Your task to perform on an android device: check data usage Image 0: 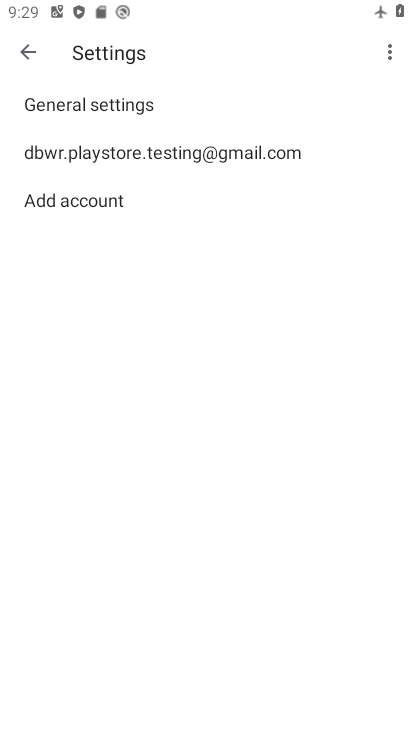
Step 0: press home button
Your task to perform on an android device: check data usage Image 1: 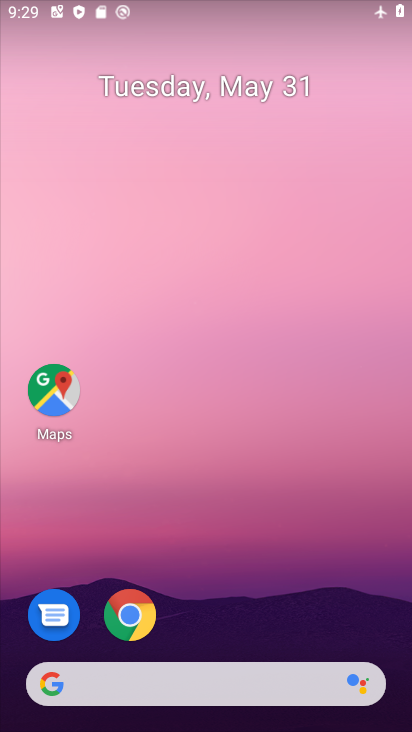
Step 1: drag from (369, 633) to (290, 135)
Your task to perform on an android device: check data usage Image 2: 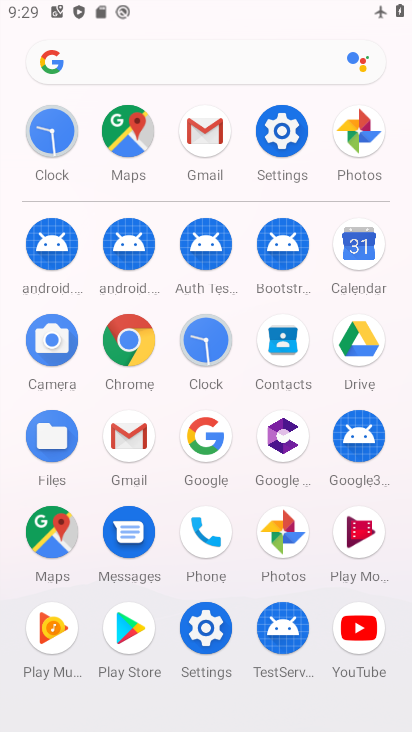
Step 2: click (207, 626)
Your task to perform on an android device: check data usage Image 3: 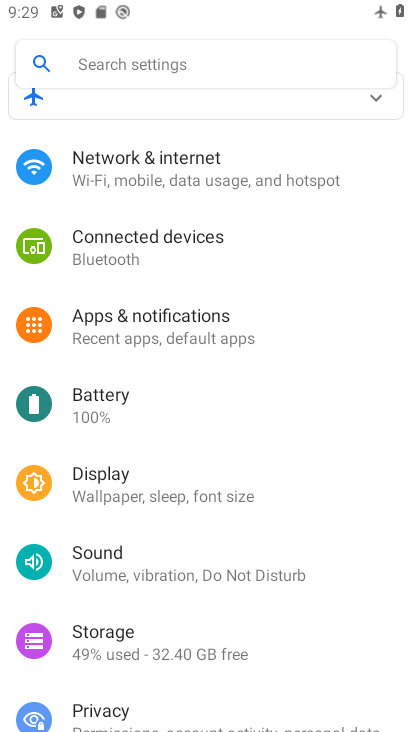
Step 3: click (119, 163)
Your task to perform on an android device: check data usage Image 4: 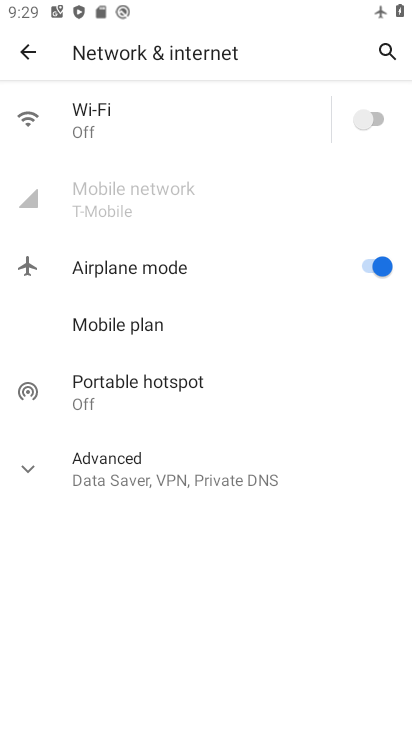
Step 4: click (364, 260)
Your task to perform on an android device: check data usage Image 5: 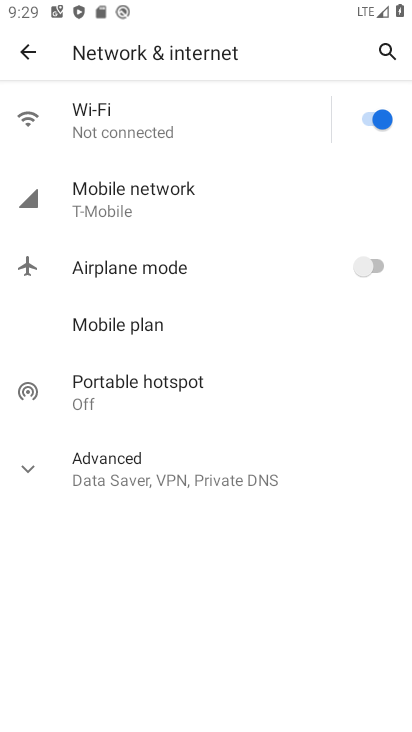
Step 5: click (131, 179)
Your task to perform on an android device: check data usage Image 6: 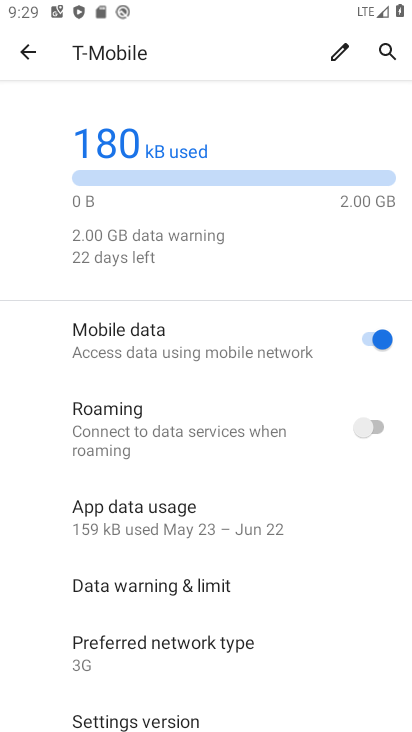
Step 6: task complete